Your task to perform on an android device: turn on the 12-hour format for clock Image 0: 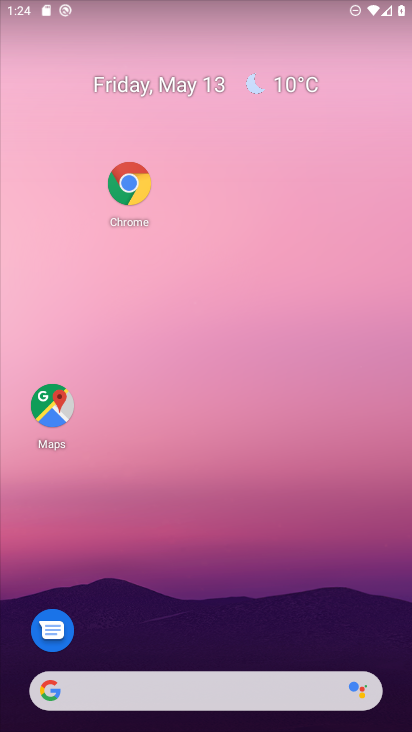
Step 0: click (297, 81)
Your task to perform on an android device: turn on the 12-hour format for clock Image 1: 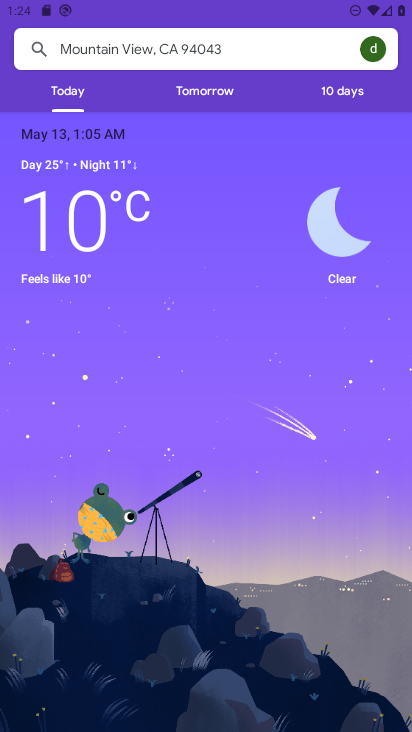
Step 1: press home button
Your task to perform on an android device: turn on the 12-hour format for clock Image 2: 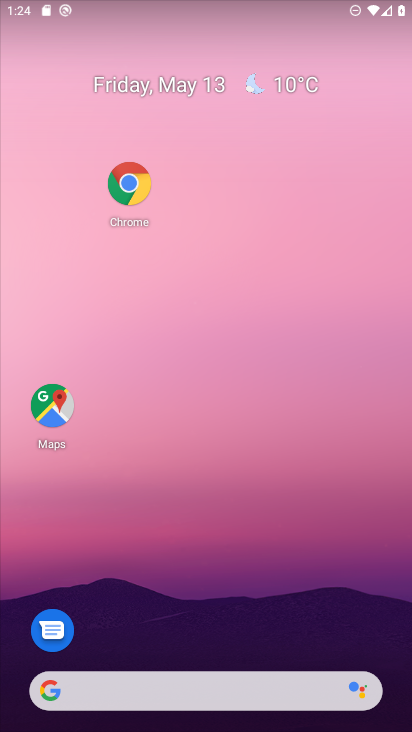
Step 2: drag from (198, 677) to (214, 113)
Your task to perform on an android device: turn on the 12-hour format for clock Image 3: 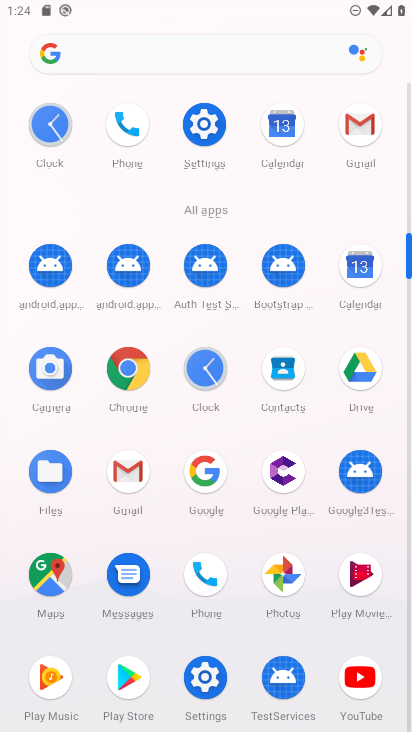
Step 3: click (218, 121)
Your task to perform on an android device: turn on the 12-hour format for clock Image 4: 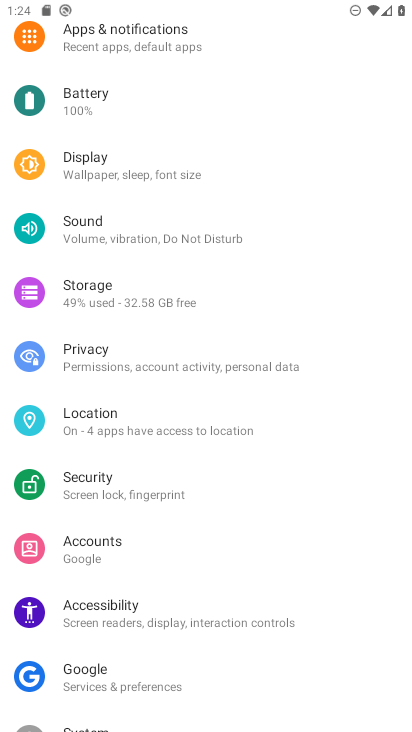
Step 4: drag from (162, 582) to (169, 186)
Your task to perform on an android device: turn on the 12-hour format for clock Image 5: 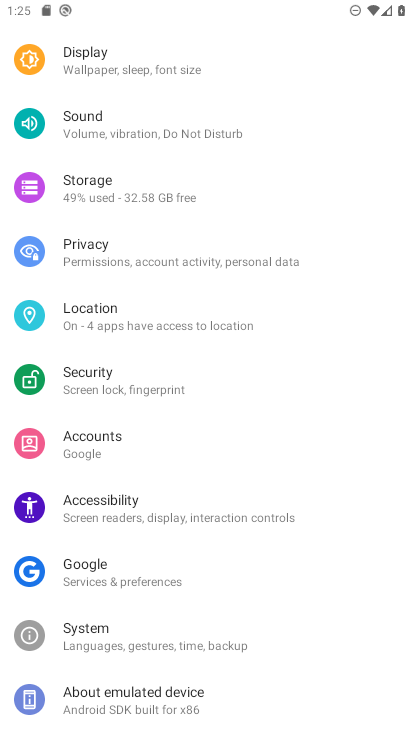
Step 5: click (138, 645)
Your task to perform on an android device: turn on the 12-hour format for clock Image 6: 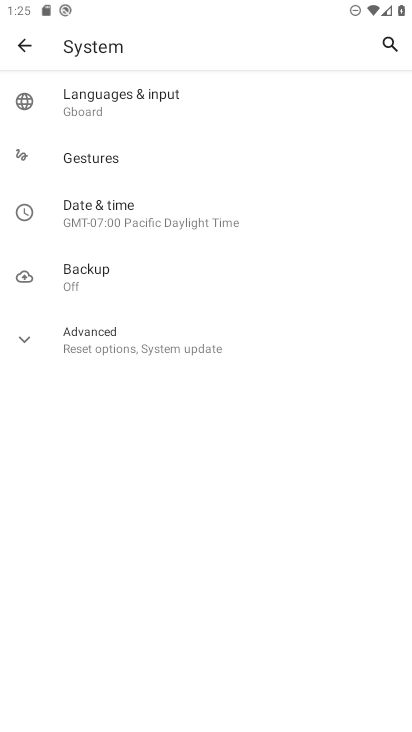
Step 6: click (131, 221)
Your task to perform on an android device: turn on the 12-hour format for clock Image 7: 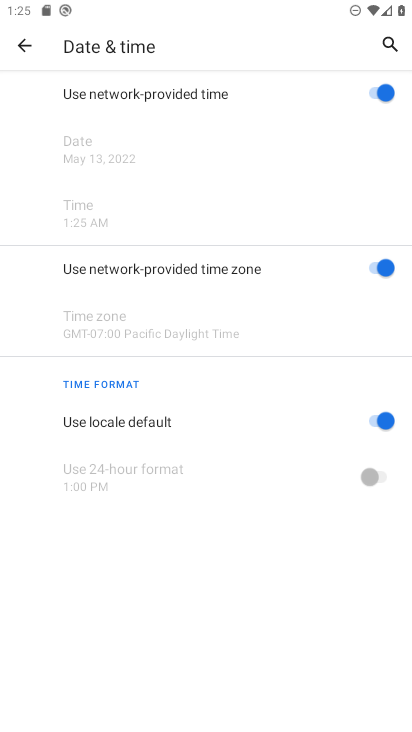
Step 7: task complete